Your task to perform on an android device: empty trash in google photos Image 0: 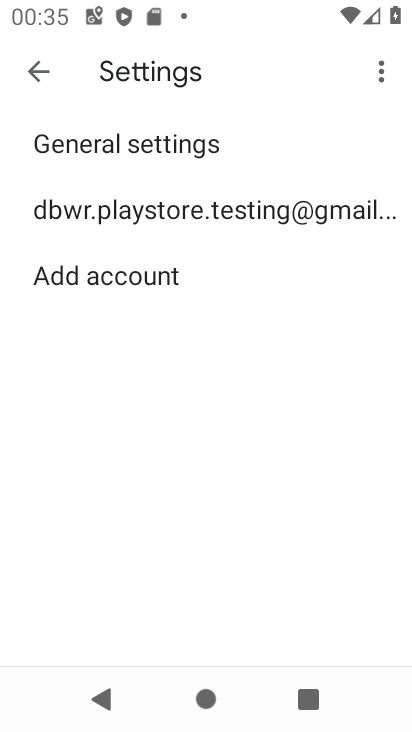
Step 0: drag from (204, 504) to (299, 161)
Your task to perform on an android device: empty trash in google photos Image 1: 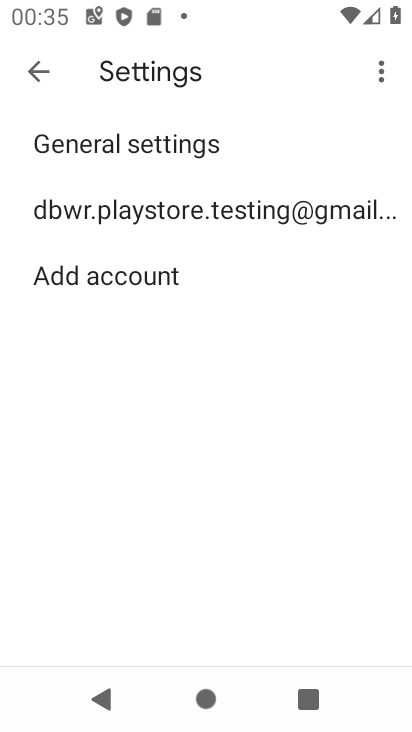
Step 1: click (251, 213)
Your task to perform on an android device: empty trash in google photos Image 2: 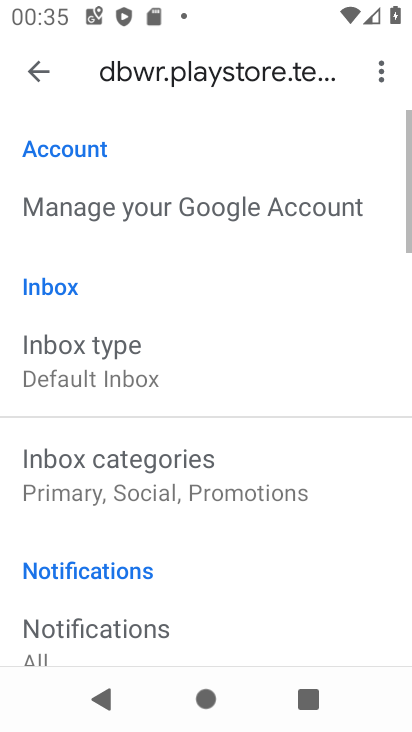
Step 2: drag from (198, 486) to (240, 197)
Your task to perform on an android device: empty trash in google photos Image 3: 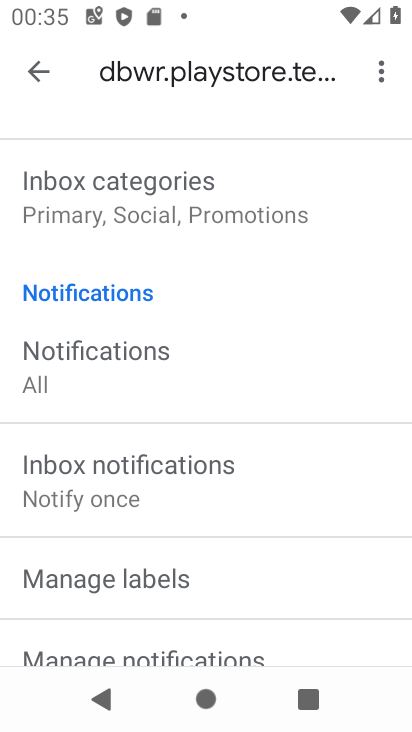
Step 3: press home button
Your task to perform on an android device: empty trash in google photos Image 4: 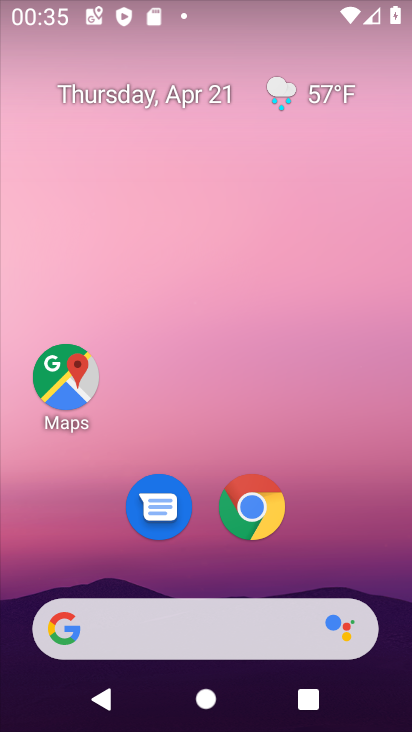
Step 4: drag from (233, 419) to (291, 48)
Your task to perform on an android device: empty trash in google photos Image 5: 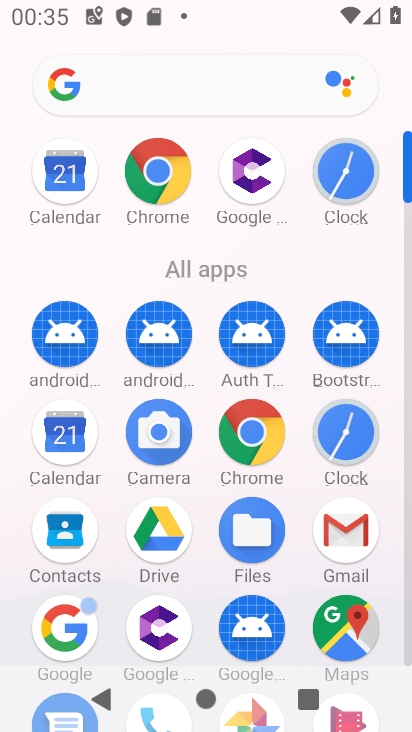
Step 5: drag from (203, 650) to (220, 45)
Your task to perform on an android device: empty trash in google photos Image 6: 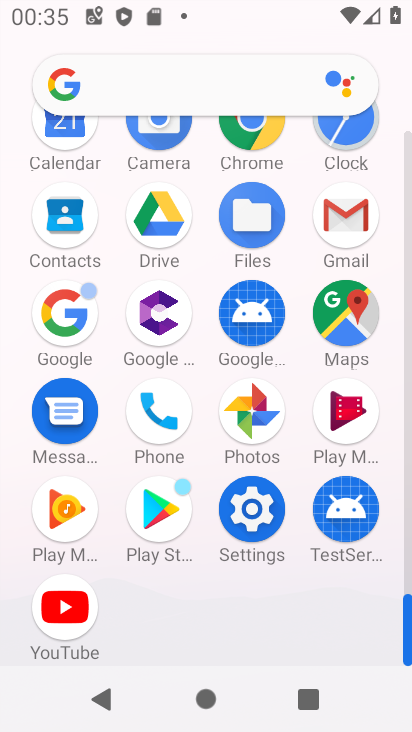
Step 6: click (239, 419)
Your task to perform on an android device: empty trash in google photos Image 7: 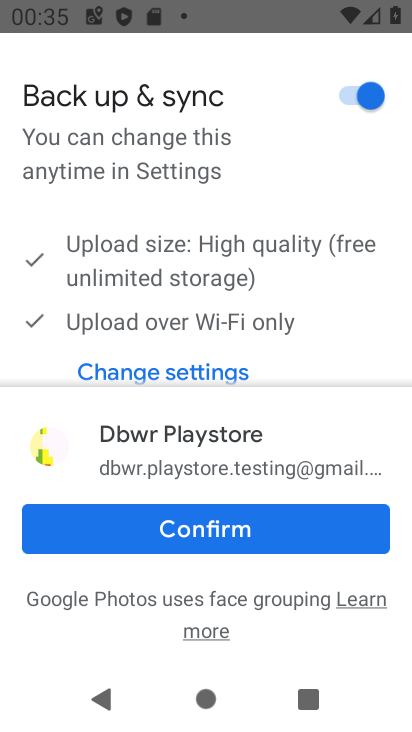
Step 7: click (252, 542)
Your task to perform on an android device: empty trash in google photos Image 8: 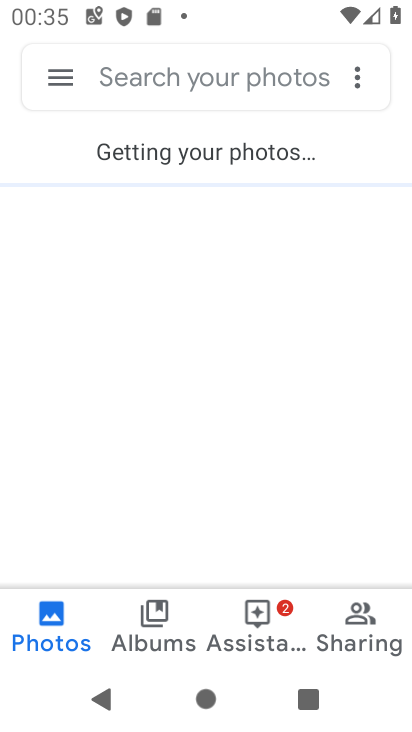
Step 8: click (71, 82)
Your task to perform on an android device: empty trash in google photos Image 9: 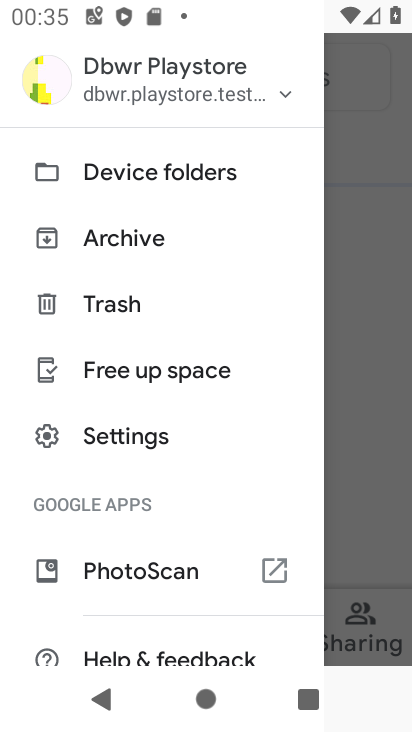
Step 9: click (153, 305)
Your task to perform on an android device: empty trash in google photos Image 10: 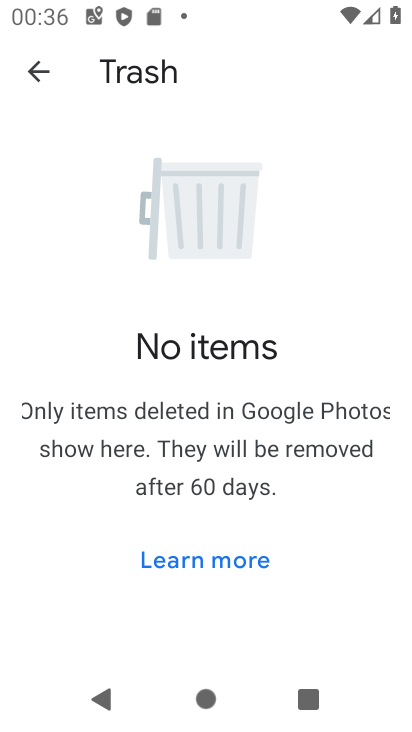
Step 10: task complete